Your task to perform on an android device: change notification settings in the gmail app Image 0: 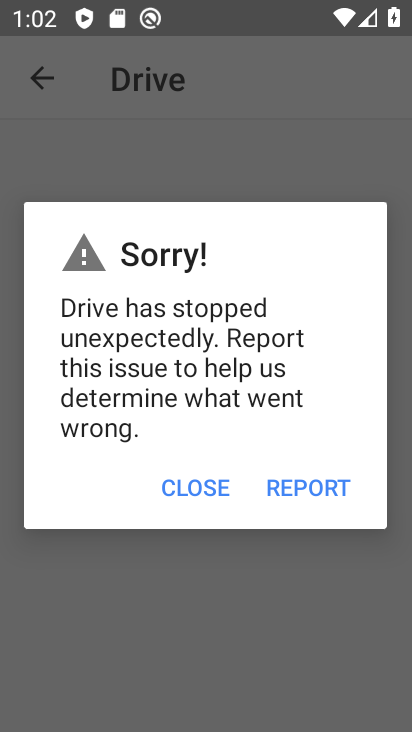
Step 0: press home button
Your task to perform on an android device: change notification settings in the gmail app Image 1: 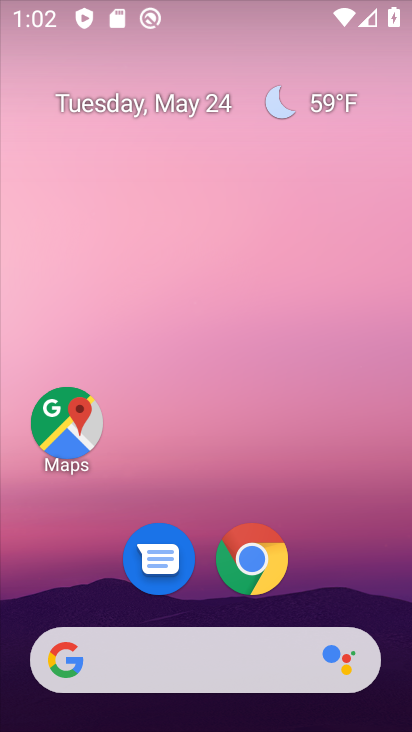
Step 1: drag from (392, 653) to (338, 41)
Your task to perform on an android device: change notification settings in the gmail app Image 2: 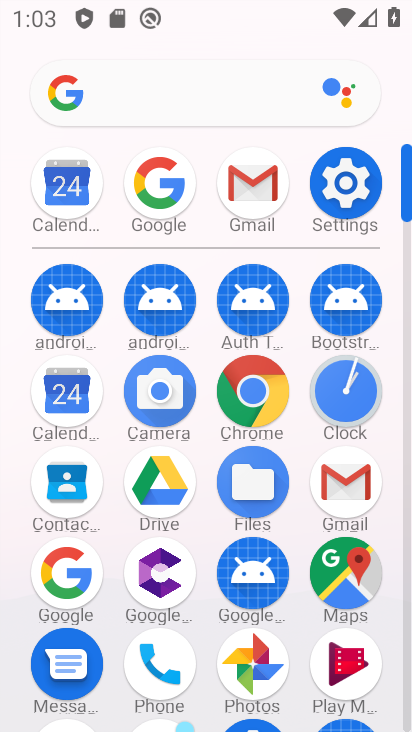
Step 2: click (337, 473)
Your task to perform on an android device: change notification settings in the gmail app Image 3: 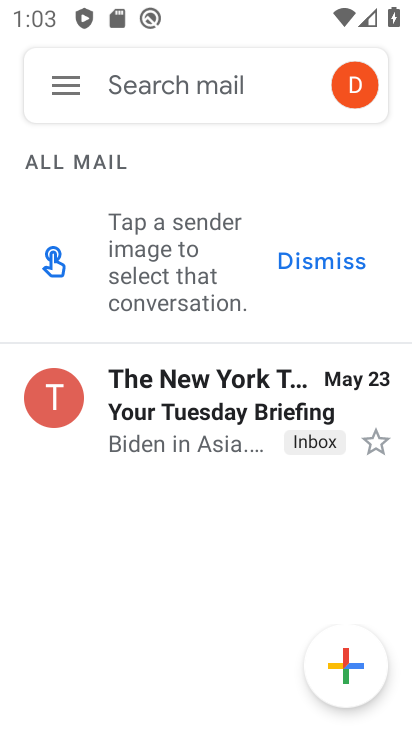
Step 3: click (72, 78)
Your task to perform on an android device: change notification settings in the gmail app Image 4: 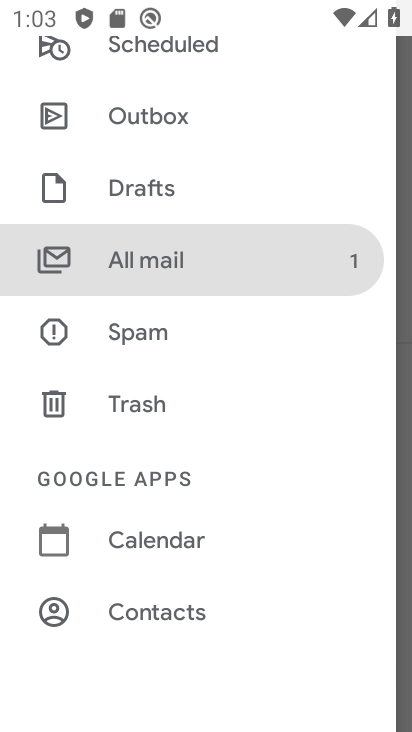
Step 4: drag from (144, 569) to (247, 125)
Your task to perform on an android device: change notification settings in the gmail app Image 5: 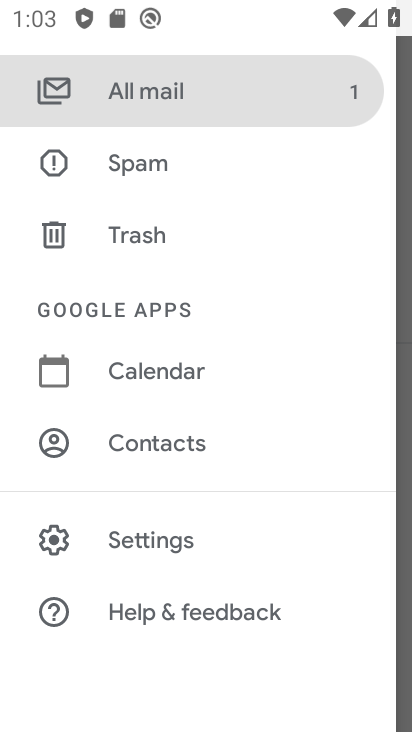
Step 5: click (193, 540)
Your task to perform on an android device: change notification settings in the gmail app Image 6: 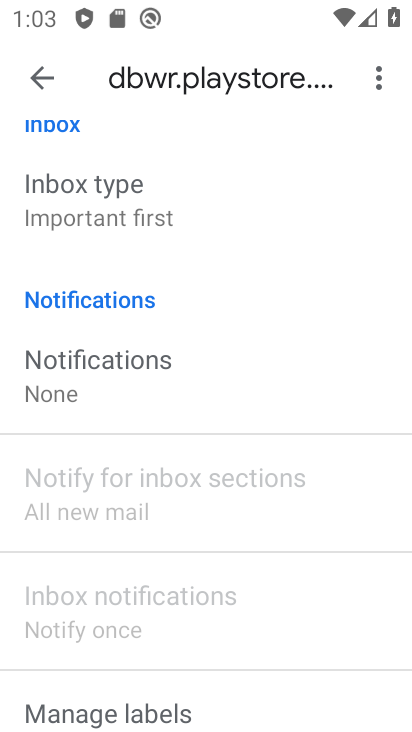
Step 6: click (162, 379)
Your task to perform on an android device: change notification settings in the gmail app Image 7: 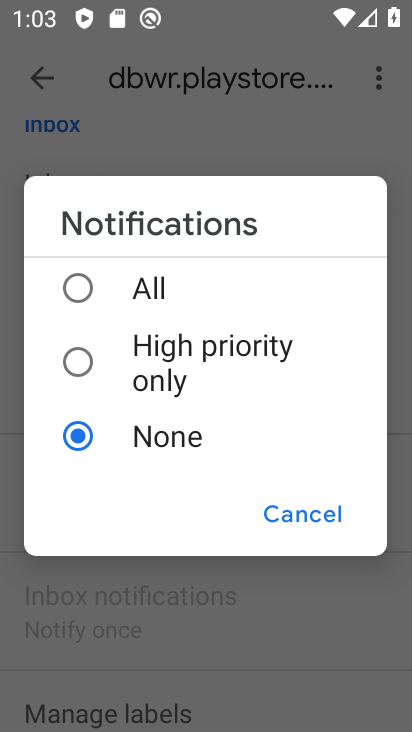
Step 7: click (78, 294)
Your task to perform on an android device: change notification settings in the gmail app Image 8: 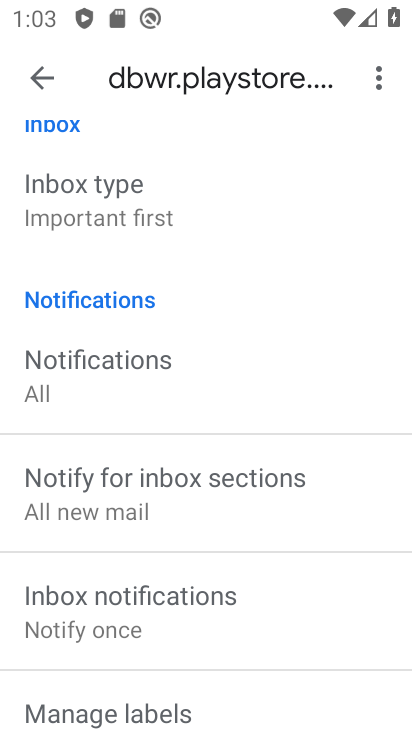
Step 8: task complete